Your task to perform on an android device: clear all cookies in the chrome app Image 0: 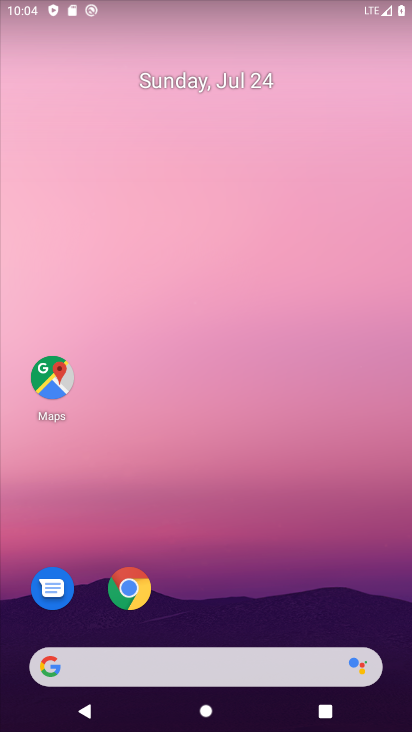
Step 0: click (125, 599)
Your task to perform on an android device: clear all cookies in the chrome app Image 1: 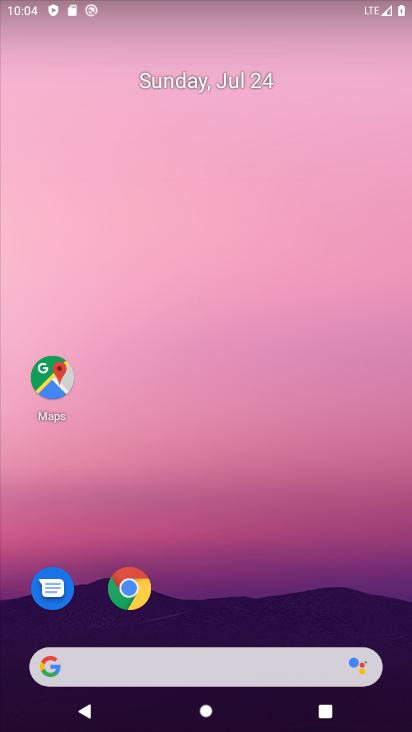
Step 1: click (125, 599)
Your task to perform on an android device: clear all cookies in the chrome app Image 2: 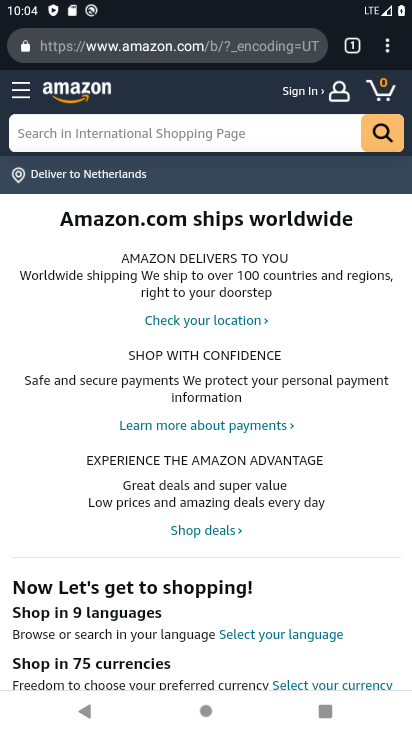
Step 2: click (386, 44)
Your task to perform on an android device: clear all cookies in the chrome app Image 3: 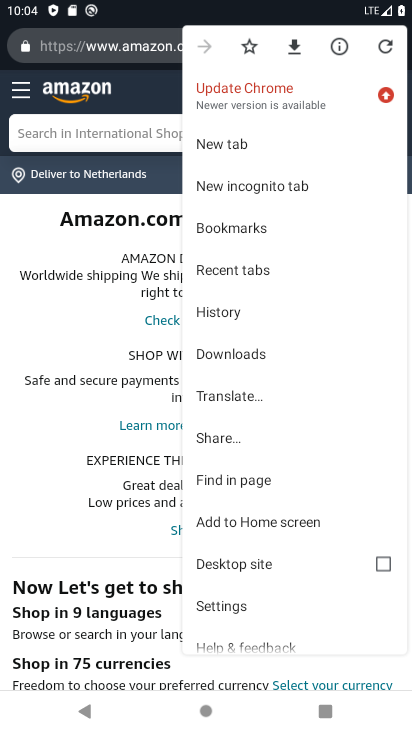
Step 3: click (258, 610)
Your task to perform on an android device: clear all cookies in the chrome app Image 4: 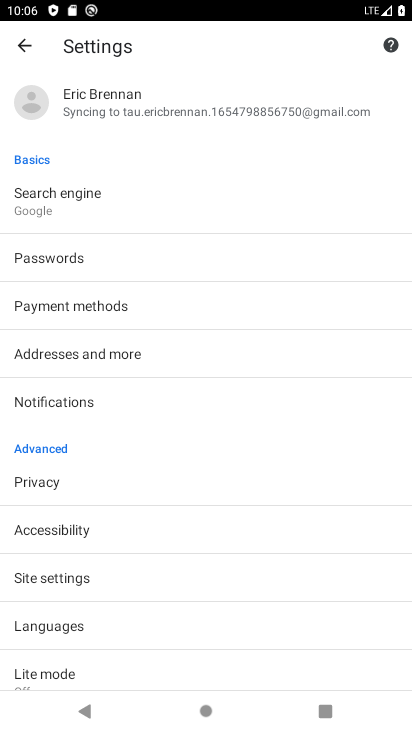
Step 4: click (26, 47)
Your task to perform on an android device: clear all cookies in the chrome app Image 5: 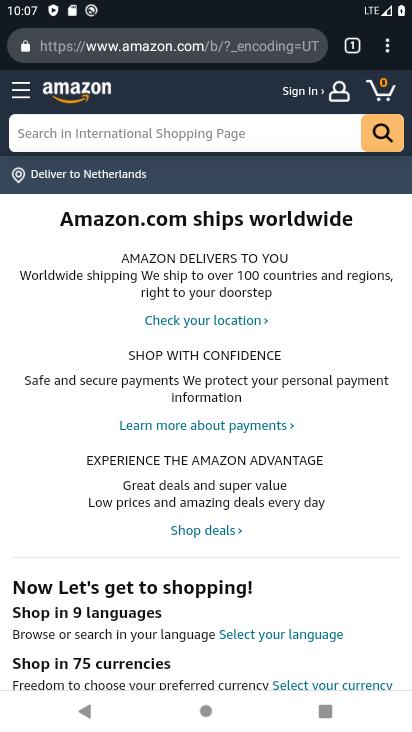
Step 5: click (393, 35)
Your task to perform on an android device: clear all cookies in the chrome app Image 6: 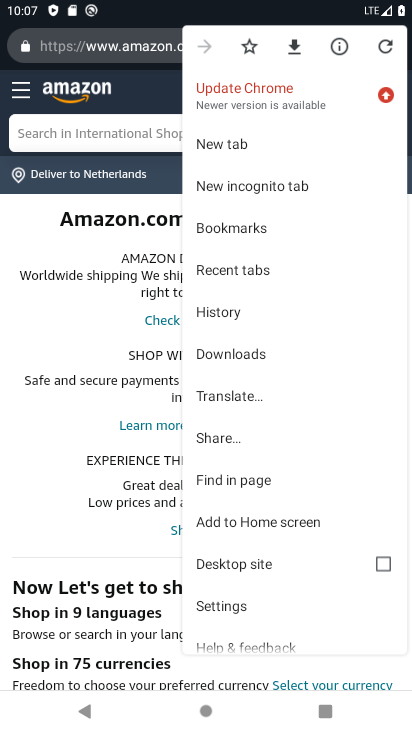
Step 6: click (242, 305)
Your task to perform on an android device: clear all cookies in the chrome app Image 7: 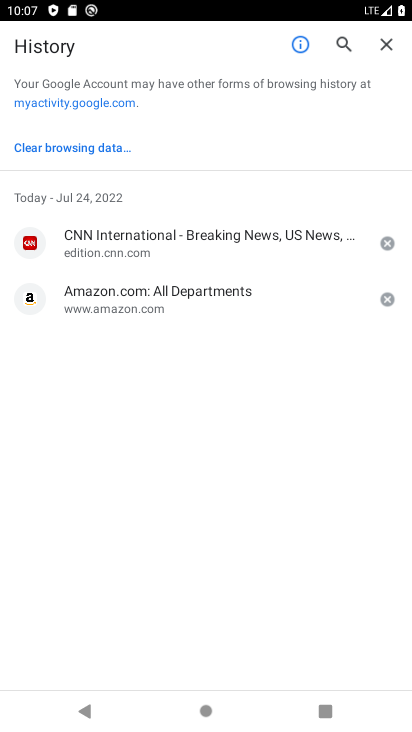
Step 7: click (77, 149)
Your task to perform on an android device: clear all cookies in the chrome app Image 8: 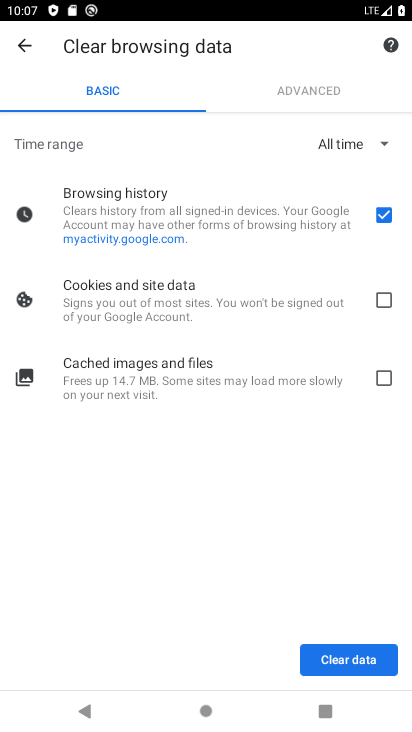
Step 8: click (342, 657)
Your task to perform on an android device: clear all cookies in the chrome app Image 9: 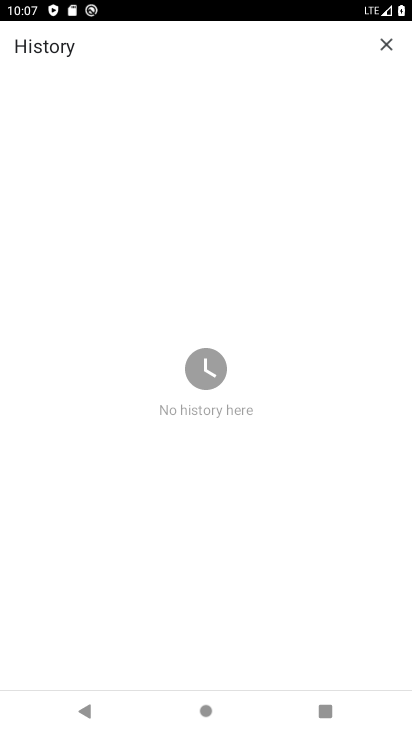
Step 9: task complete